Your task to perform on an android device: Open Amazon Image 0: 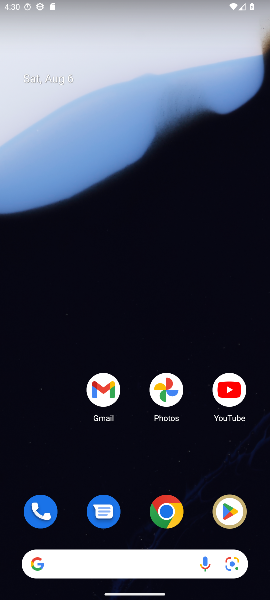
Step 0: click (166, 513)
Your task to perform on an android device: Open Amazon Image 1: 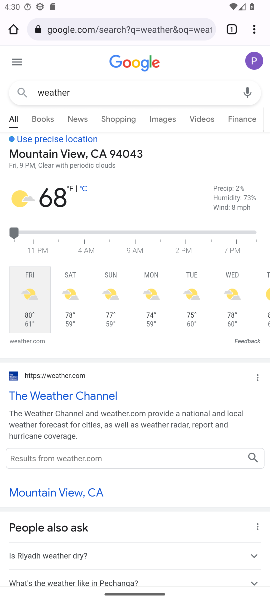
Step 1: click (141, 31)
Your task to perform on an android device: Open Amazon Image 2: 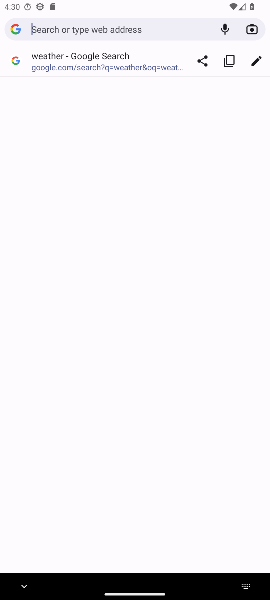
Step 2: type "Amazon"
Your task to perform on an android device: Open Amazon Image 3: 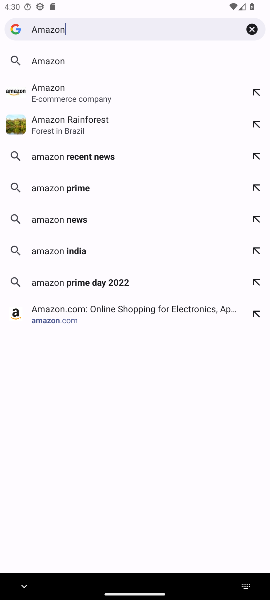
Step 3: click (70, 58)
Your task to perform on an android device: Open Amazon Image 4: 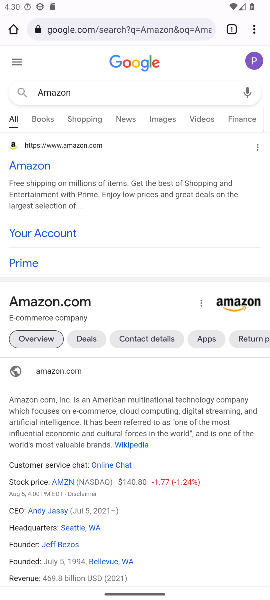
Step 4: task complete